Your task to perform on an android device: open chrome and create a bookmark for the current page Image 0: 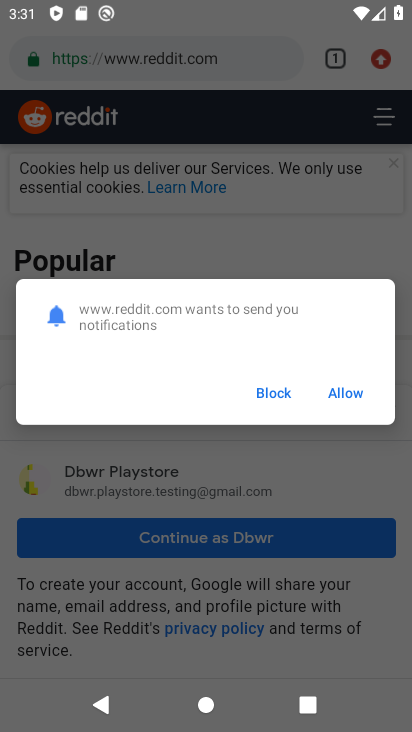
Step 0: press home button
Your task to perform on an android device: open chrome and create a bookmark for the current page Image 1: 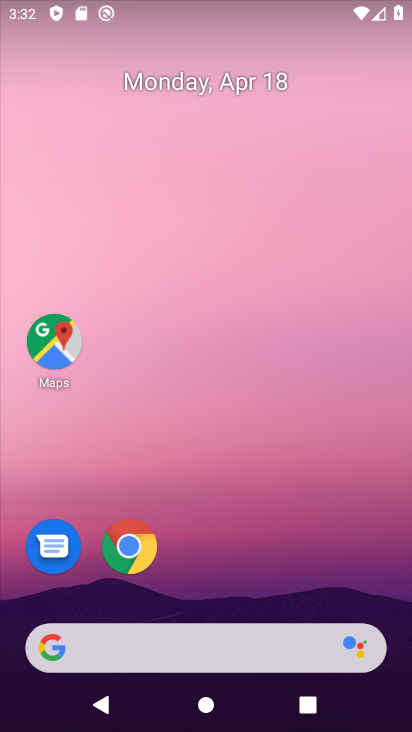
Step 1: click (132, 543)
Your task to perform on an android device: open chrome and create a bookmark for the current page Image 2: 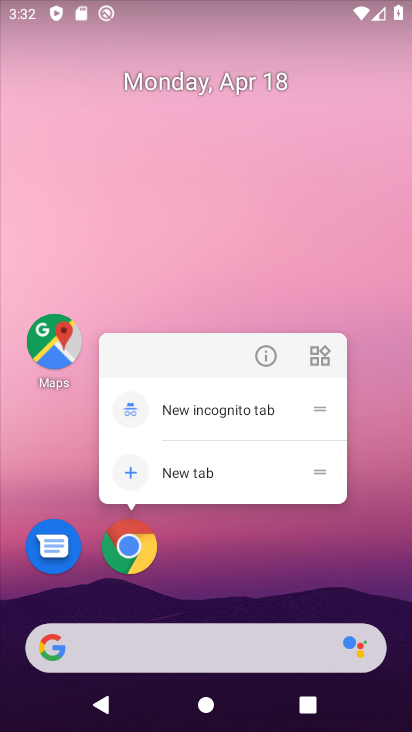
Step 2: click (129, 539)
Your task to perform on an android device: open chrome and create a bookmark for the current page Image 3: 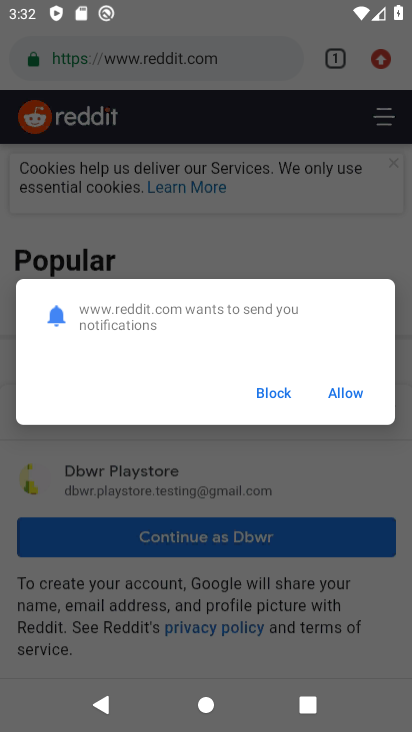
Step 3: click (277, 392)
Your task to perform on an android device: open chrome and create a bookmark for the current page Image 4: 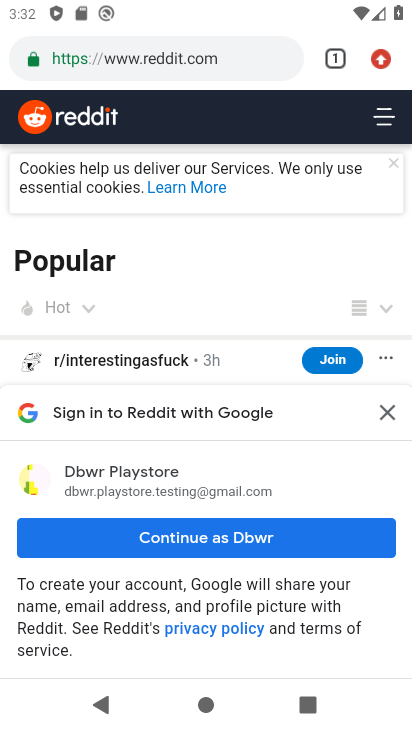
Step 4: click (401, 53)
Your task to perform on an android device: open chrome and create a bookmark for the current page Image 5: 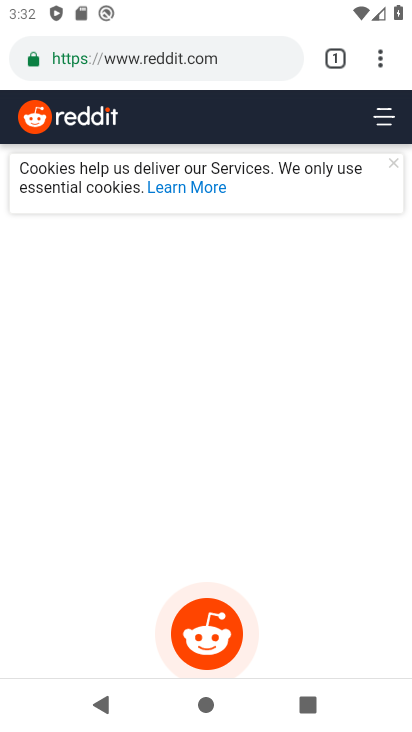
Step 5: click (382, 55)
Your task to perform on an android device: open chrome and create a bookmark for the current page Image 6: 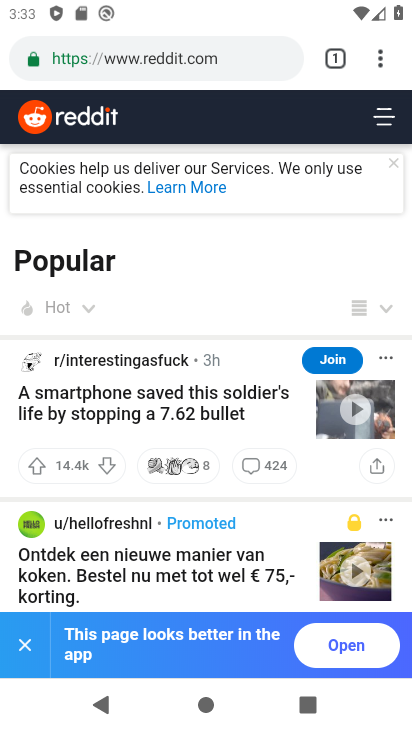
Step 6: task complete